Your task to perform on an android device: Go to Android settings Image 0: 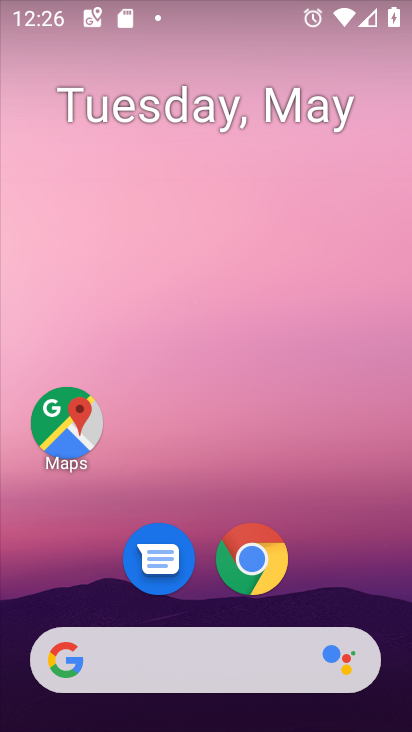
Step 0: drag from (386, 602) to (337, 162)
Your task to perform on an android device: Go to Android settings Image 1: 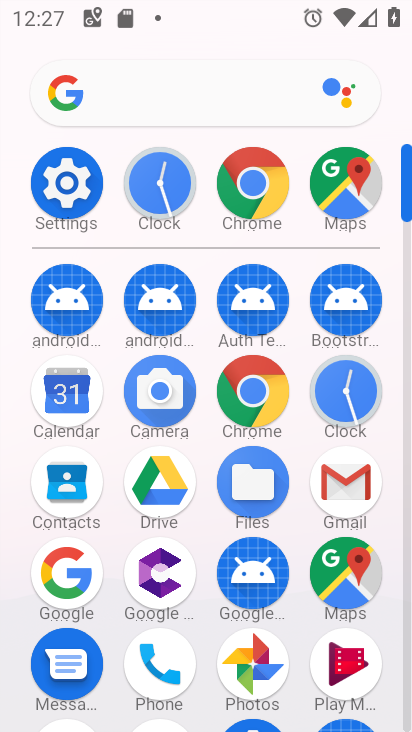
Step 1: click (62, 188)
Your task to perform on an android device: Go to Android settings Image 2: 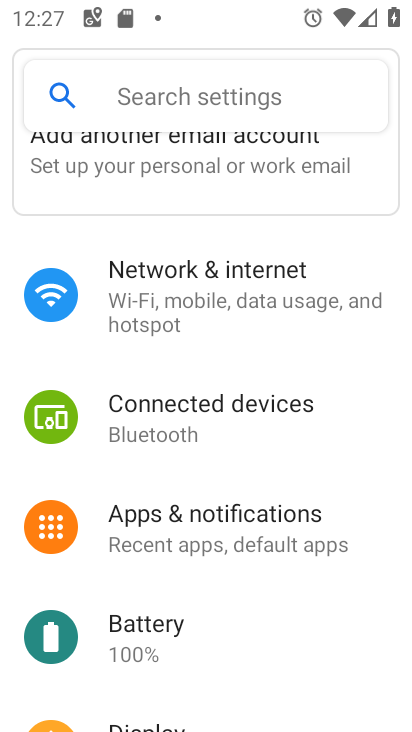
Step 2: task complete